Your task to perform on an android device: check data usage Image 0: 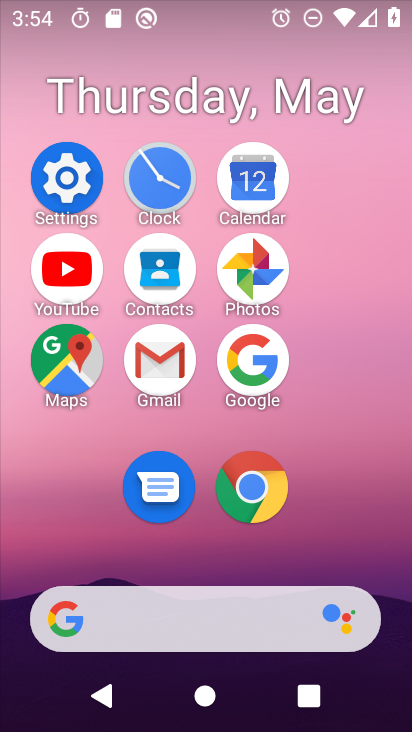
Step 0: click (71, 178)
Your task to perform on an android device: check data usage Image 1: 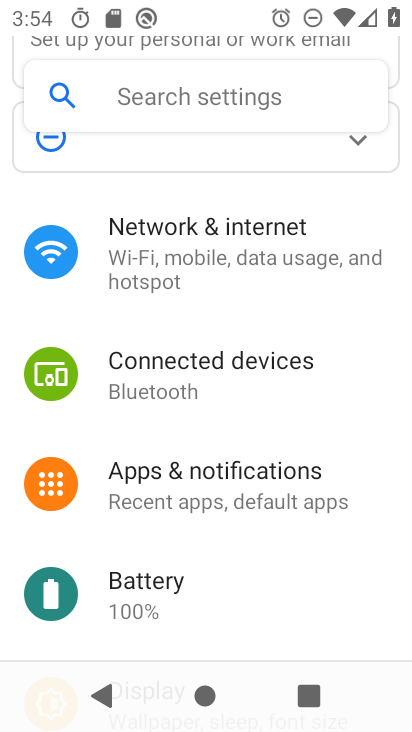
Step 1: click (231, 285)
Your task to perform on an android device: check data usage Image 2: 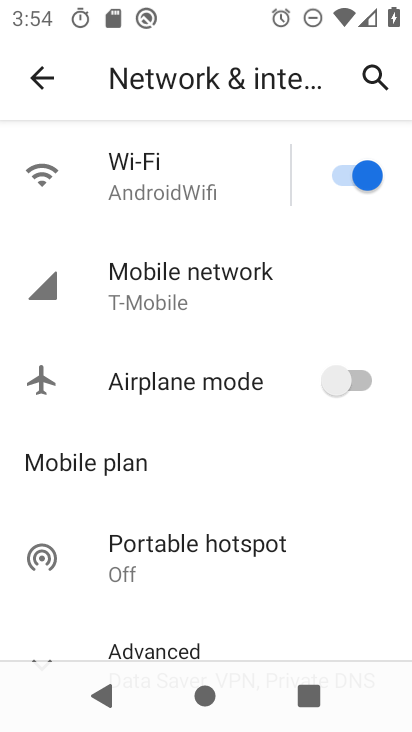
Step 2: click (170, 286)
Your task to perform on an android device: check data usage Image 3: 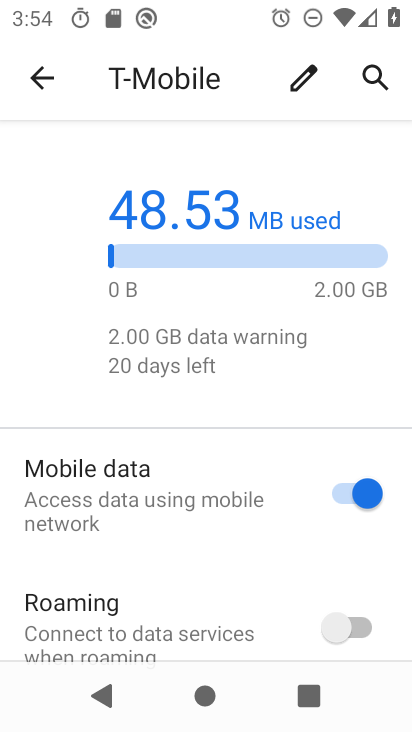
Step 3: task complete